Your task to perform on an android device: open app "Upside-Cash back on gas & food" (install if not already installed), go to login, and select forgot password Image 0: 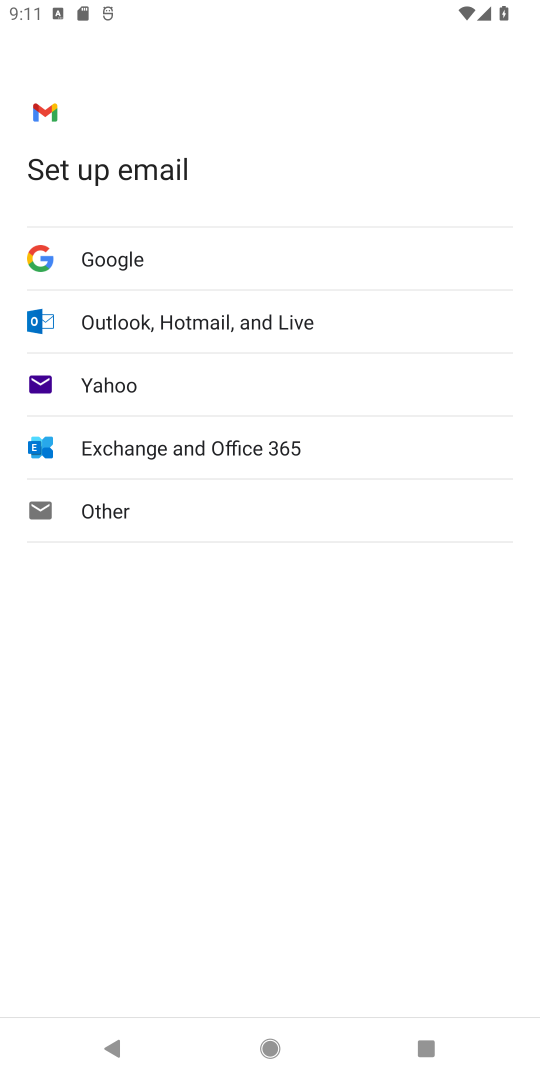
Step 0: press home button
Your task to perform on an android device: open app "Upside-Cash back on gas & food" (install if not already installed), go to login, and select forgot password Image 1: 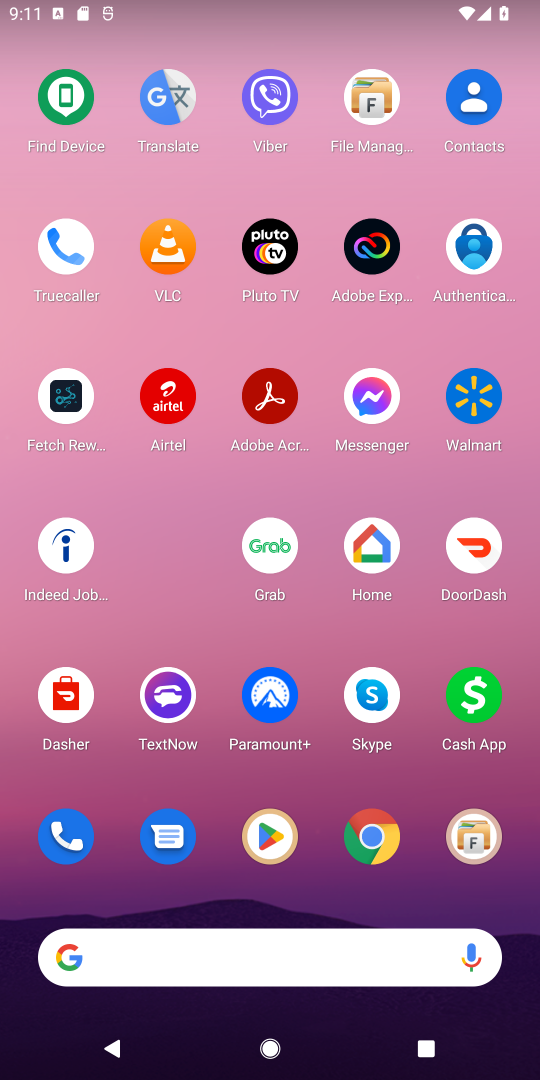
Step 1: press home button
Your task to perform on an android device: open app "Upside-Cash back on gas & food" (install if not already installed), go to login, and select forgot password Image 2: 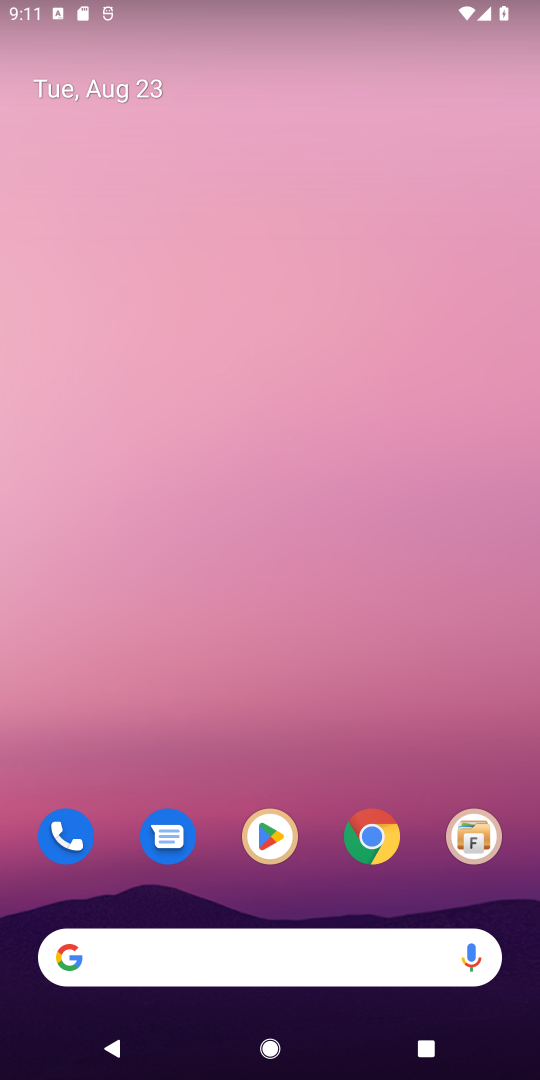
Step 2: click (256, 824)
Your task to perform on an android device: open app "Upside-Cash back on gas & food" (install if not already installed), go to login, and select forgot password Image 3: 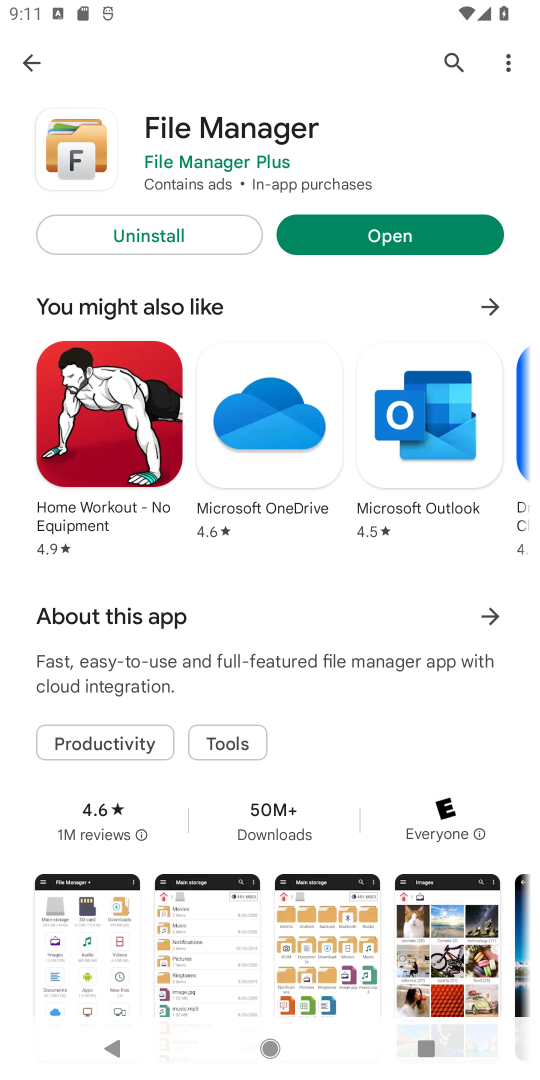
Step 3: click (447, 60)
Your task to perform on an android device: open app "Upside-Cash back on gas & food" (install if not already installed), go to login, and select forgot password Image 4: 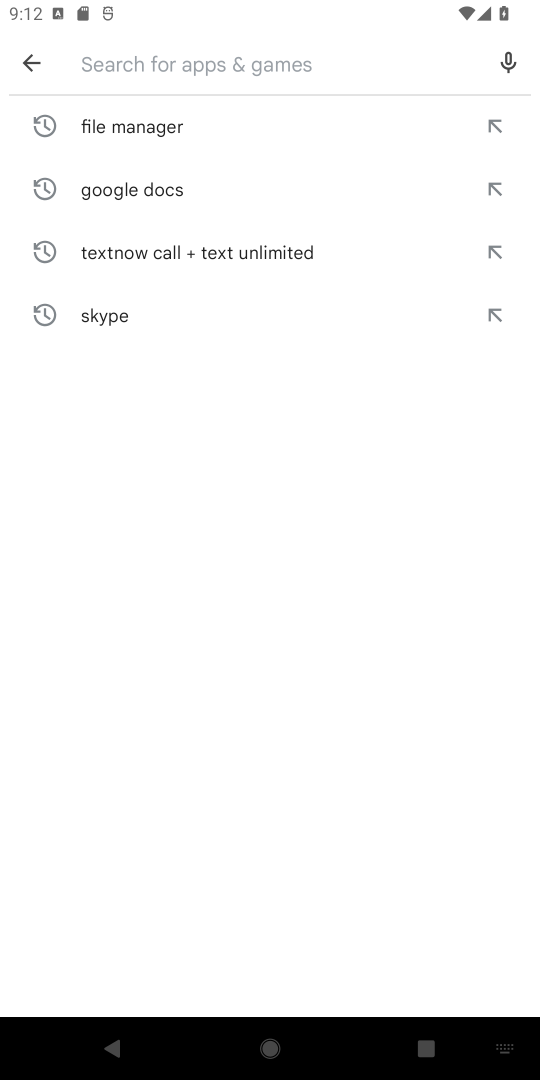
Step 4: type "Upside-Cash back on gas & food"
Your task to perform on an android device: open app "Upside-Cash back on gas & food" (install if not already installed), go to login, and select forgot password Image 5: 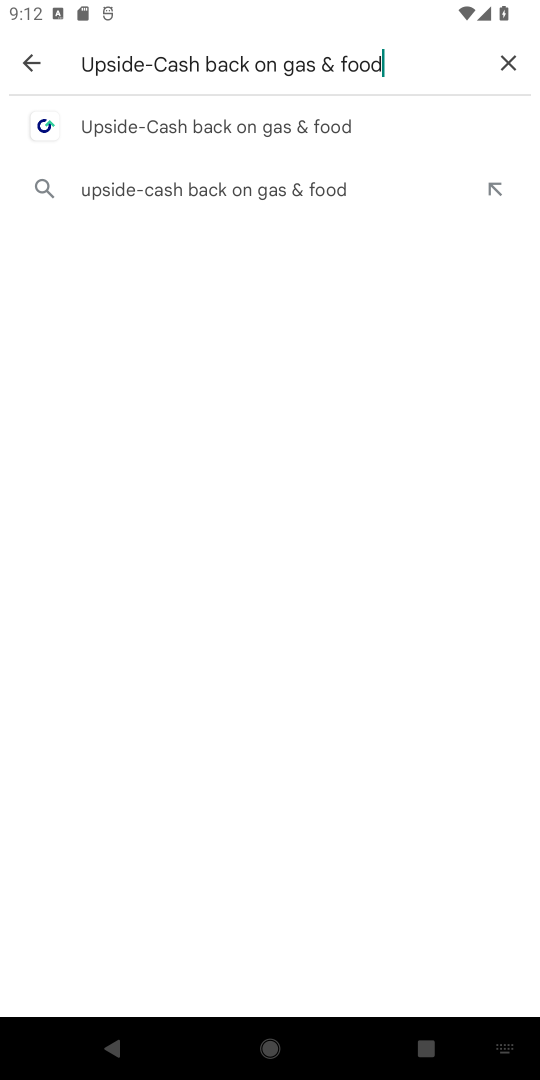
Step 5: click (317, 111)
Your task to perform on an android device: open app "Upside-Cash back on gas & food" (install if not already installed), go to login, and select forgot password Image 6: 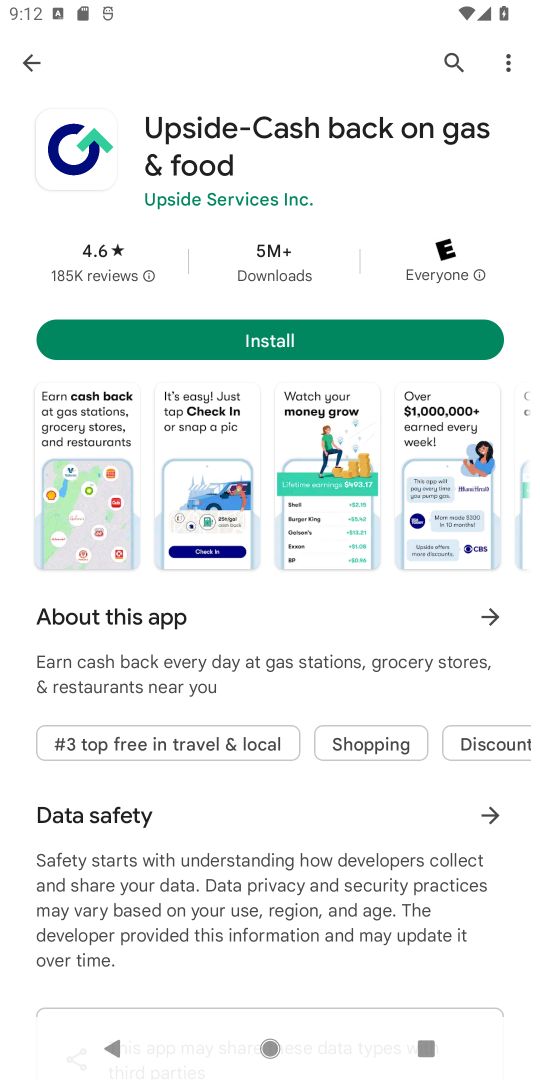
Step 6: click (372, 345)
Your task to perform on an android device: open app "Upside-Cash back on gas & food" (install if not already installed), go to login, and select forgot password Image 7: 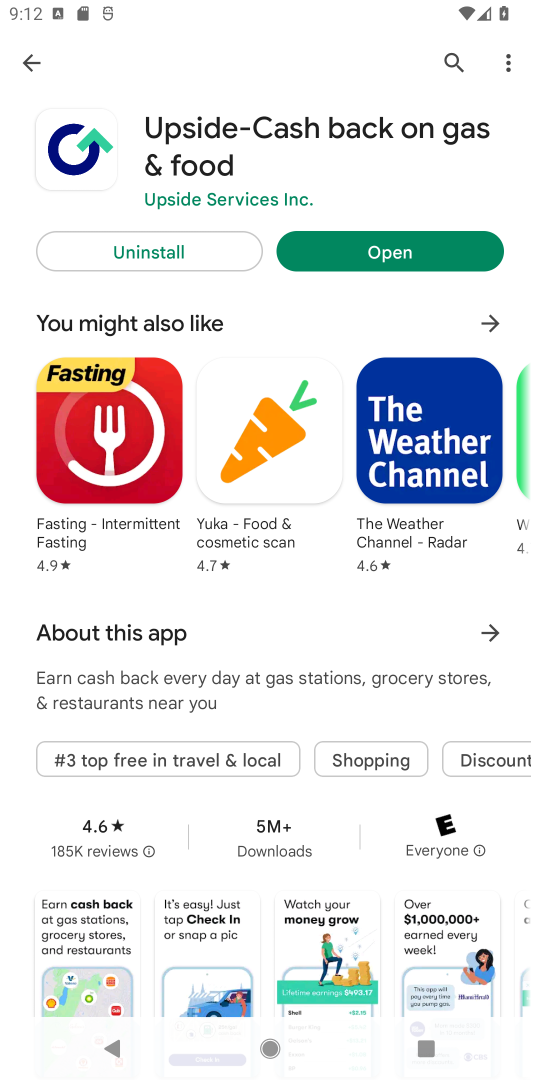
Step 7: click (403, 237)
Your task to perform on an android device: open app "Upside-Cash back on gas & food" (install if not already installed), go to login, and select forgot password Image 8: 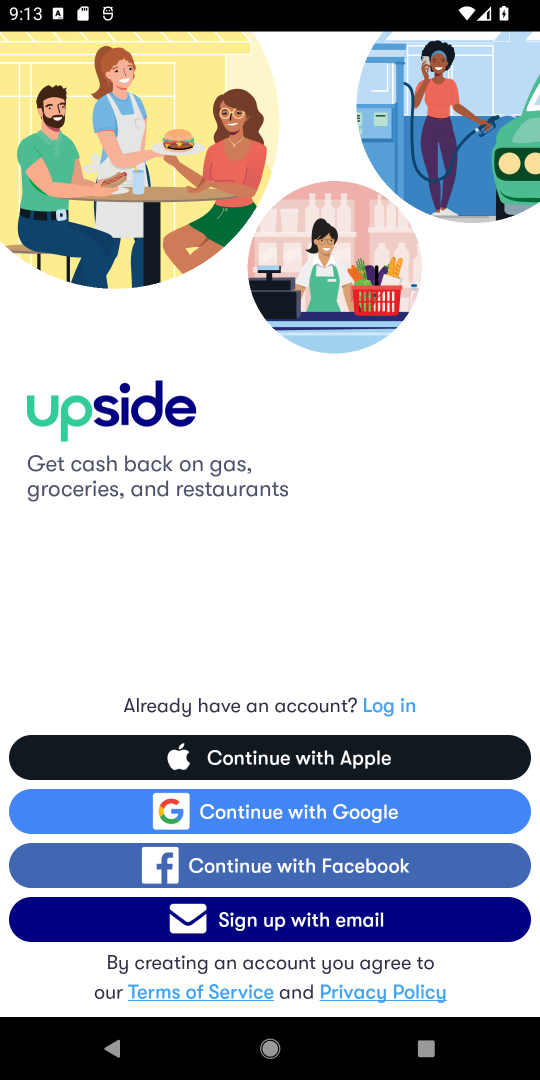
Step 8: click (292, 928)
Your task to perform on an android device: open app "Upside-Cash back on gas & food" (install if not already installed), go to login, and select forgot password Image 9: 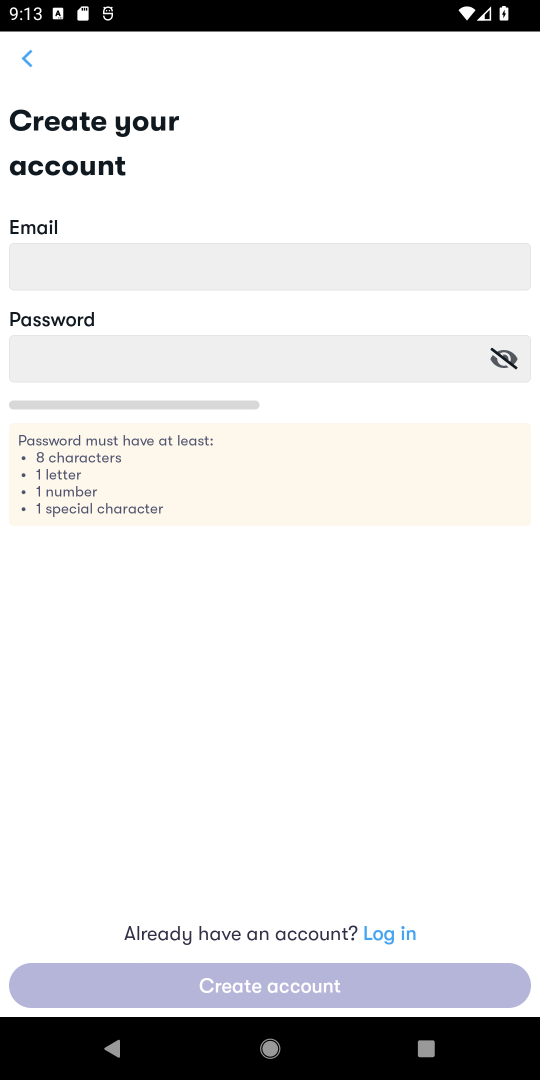
Step 9: click (375, 929)
Your task to perform on an android device: open app "Upside-Cash back on gas & food" (install if not already installed), go to login, and select forgot password Image 10: 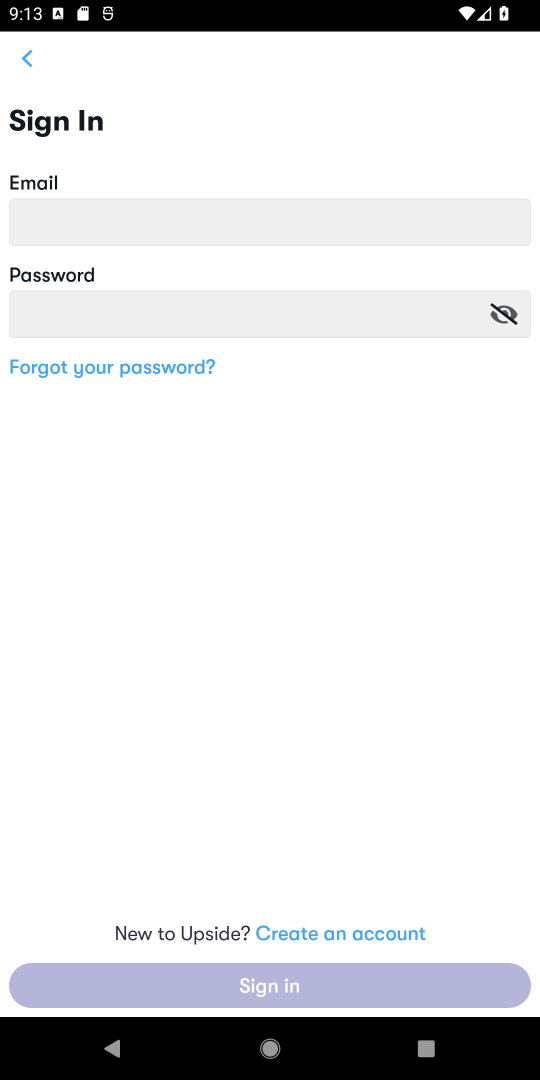
Step 10: click (143, 367)
Your task to perform on an android device: open app "Upside-Cash back on gas & food" (install if not already installed), go to login, and select forgot password Image 11: 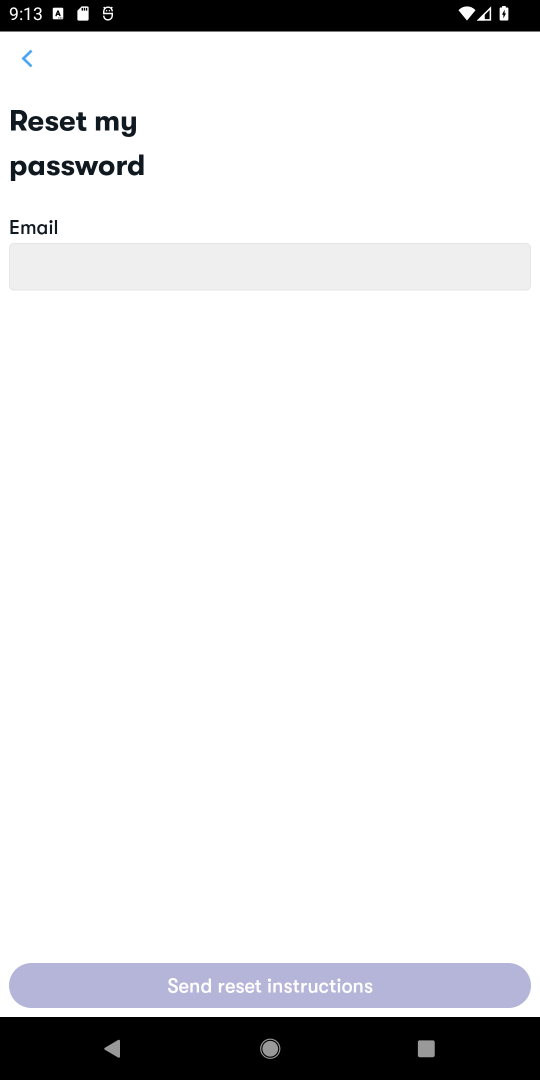
Step 11: task complete